Your task to perform on an android device: Empty the shopping cart on target. Image 0: 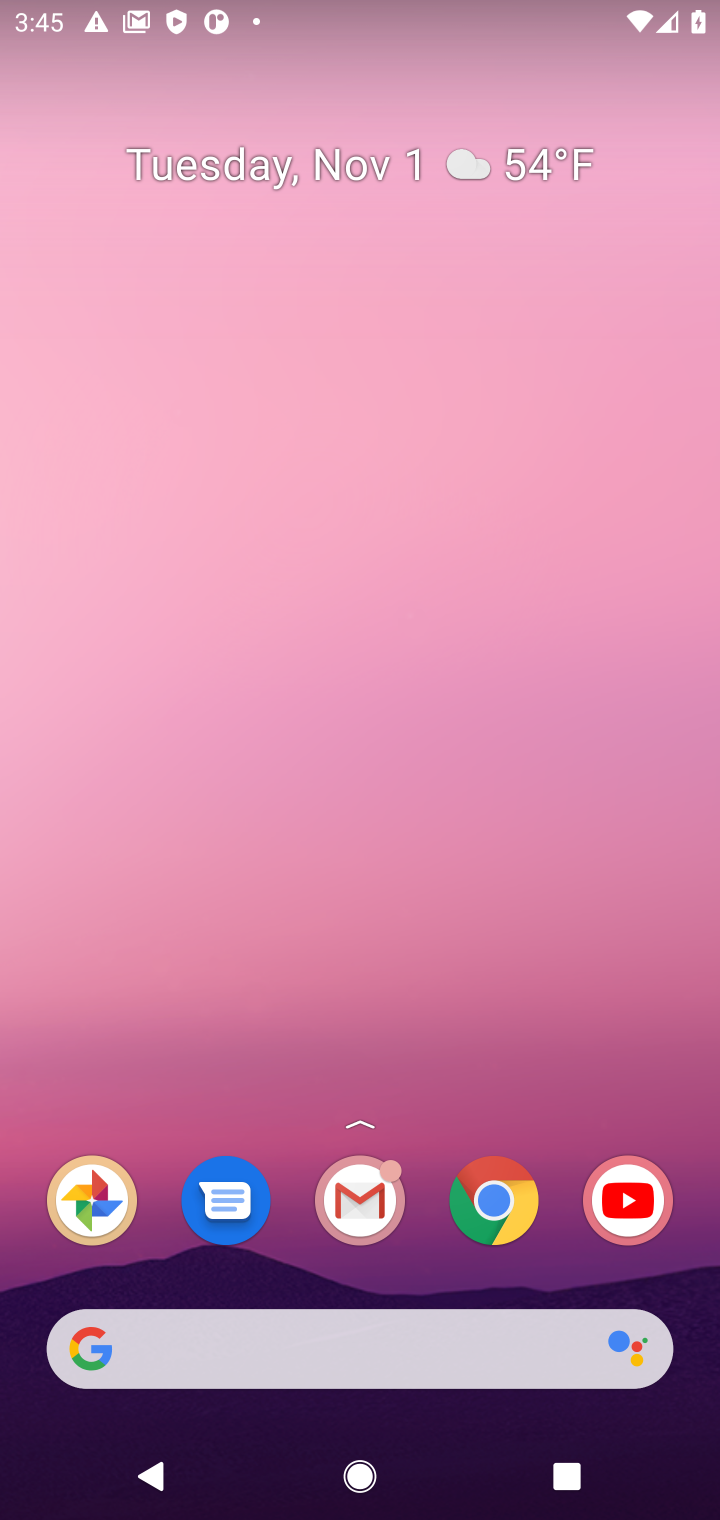
Step 0: click (87, 1353)
Your task to perform on an android device: Empty the shopping cart on target. Image 1: 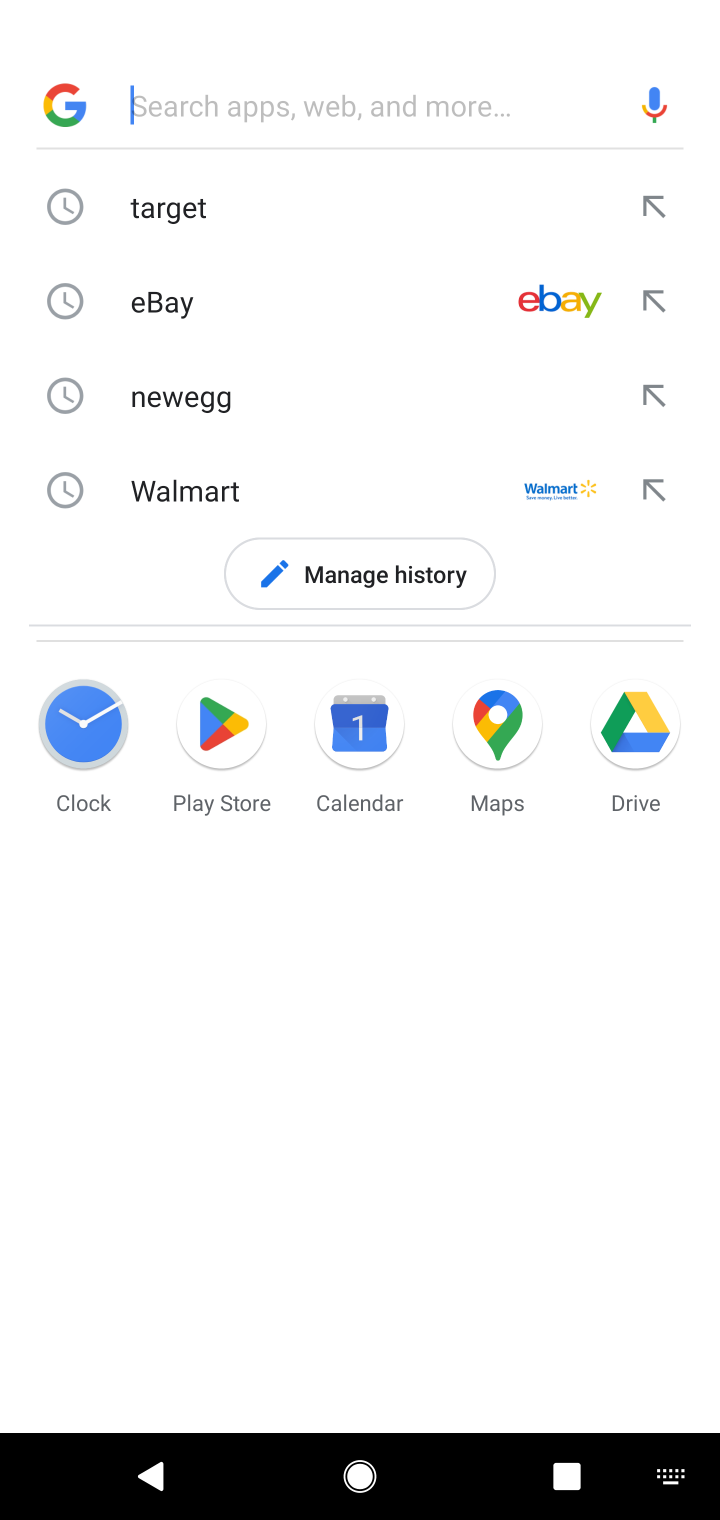
Step 1: click (197, 201)
Your task to perform on an android device: Empty the shopping cart on target. Image 2: 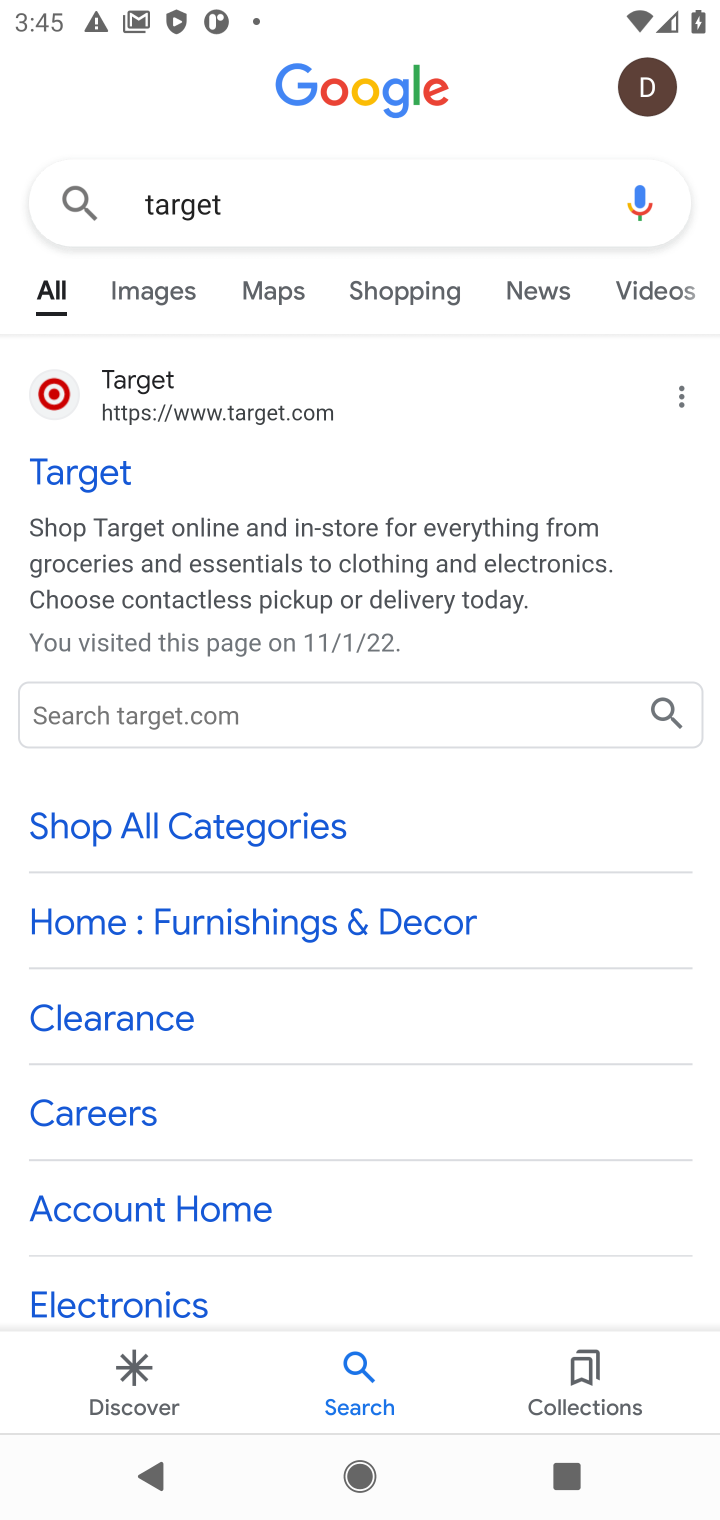
Step 2: click (112, 487)
Your task to perform on an android device: Empty the shopping cart on target. Image 3: 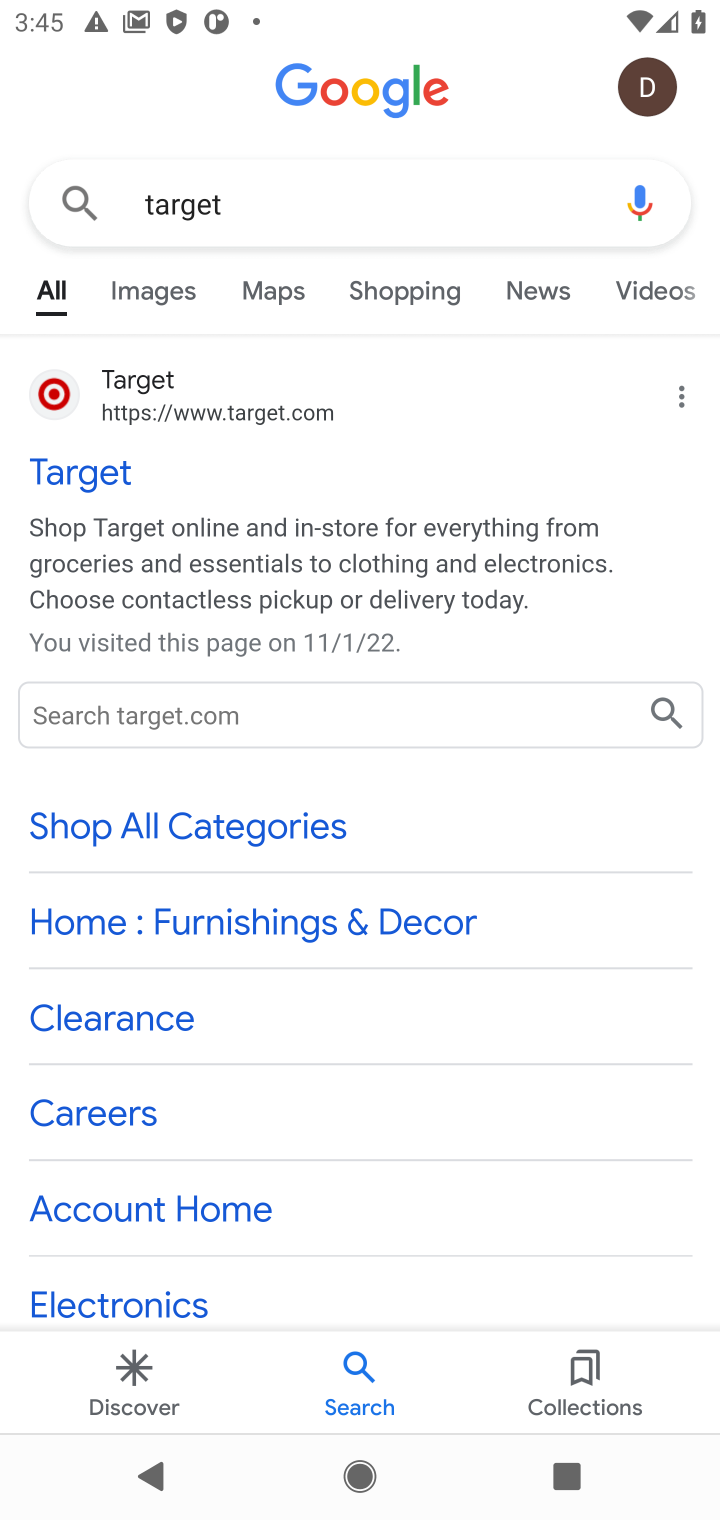
Step 3: click (97, 483)
Your task to perform on an android device: Empty the shopping cart on target. Image 4: 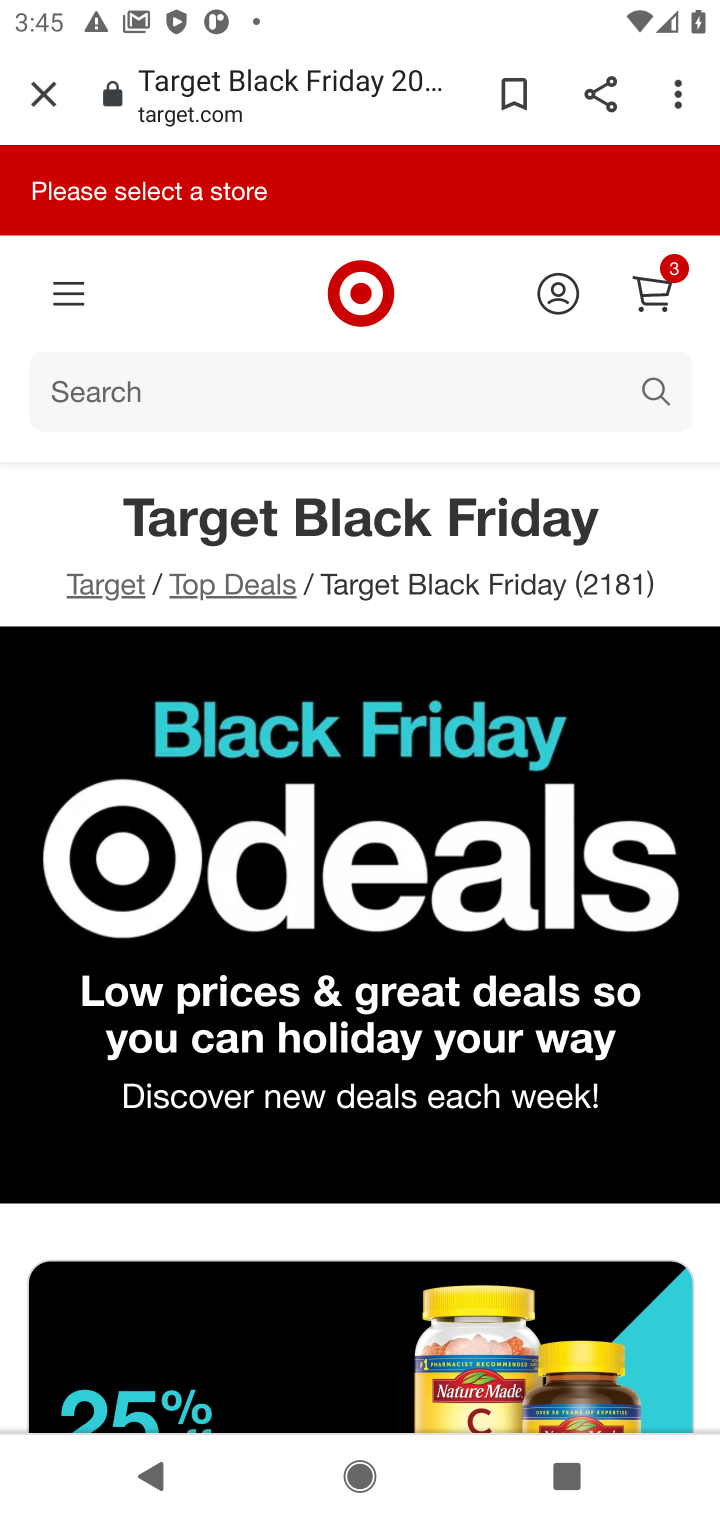
Step 4: click (660, 274)
Your task to perform on an android device: Empty the shopping cart on target. Image 5: 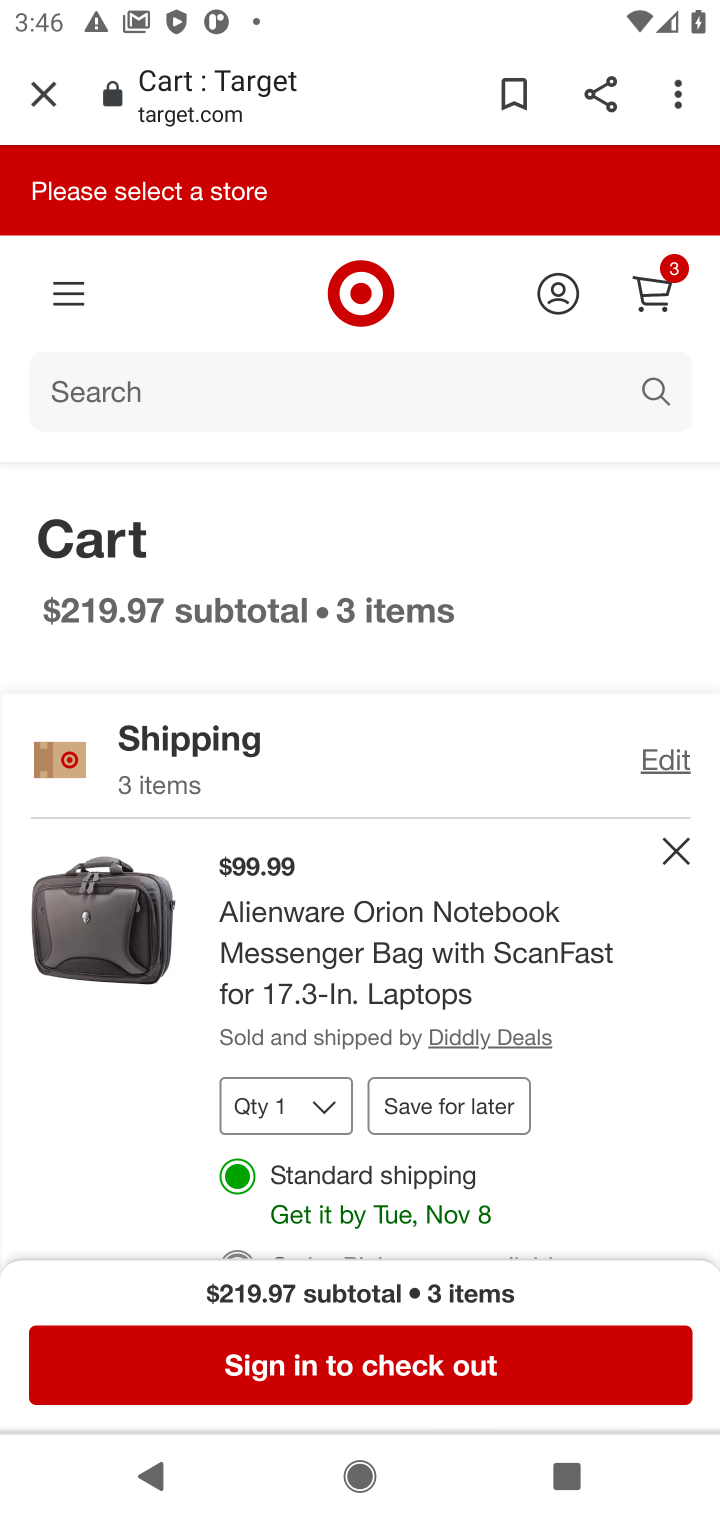
Step 5: click (678, 849)
Your task to perform on an android device: Empty the shopping cart on target. Image 6: 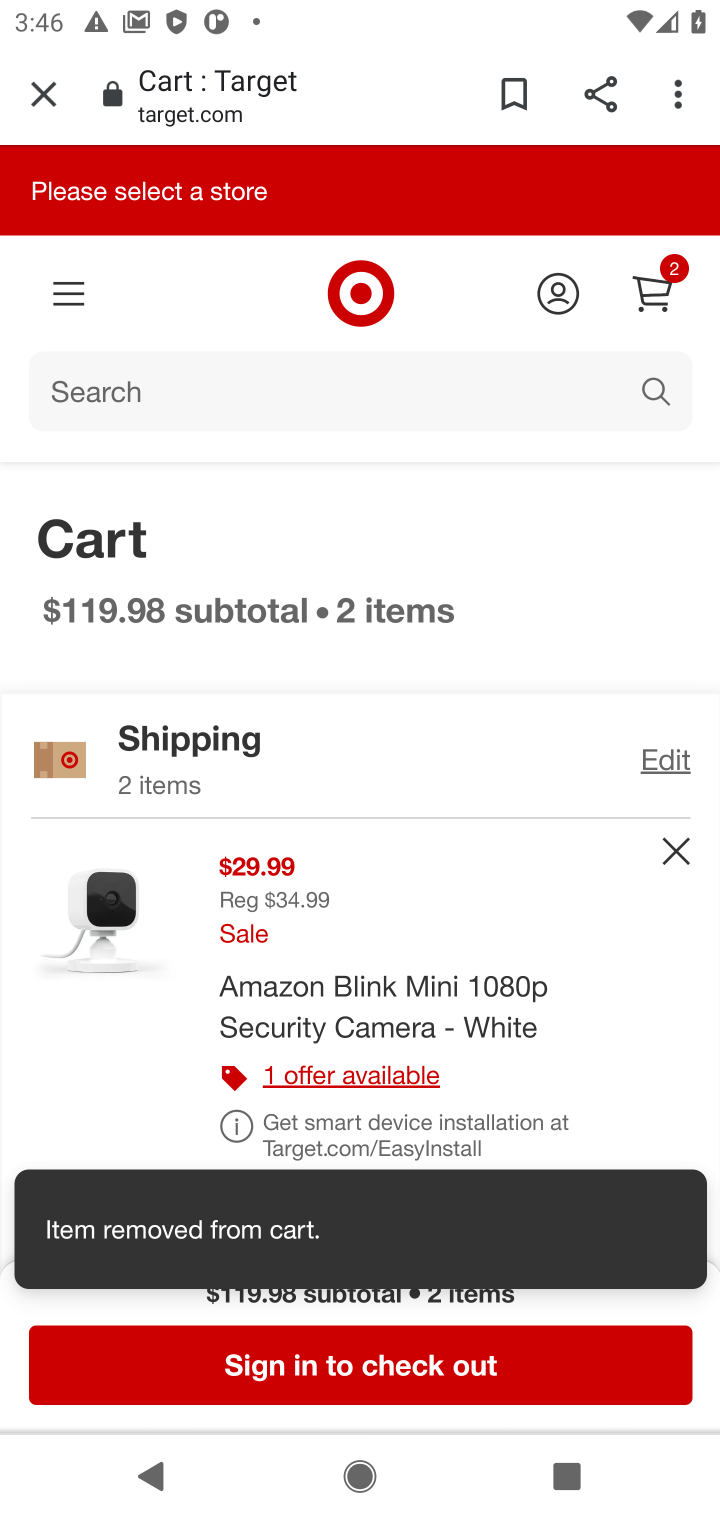
Step 6: click (676, 849)
Your task to perform on an android device: Empty the shopping cart on target. Image 7: 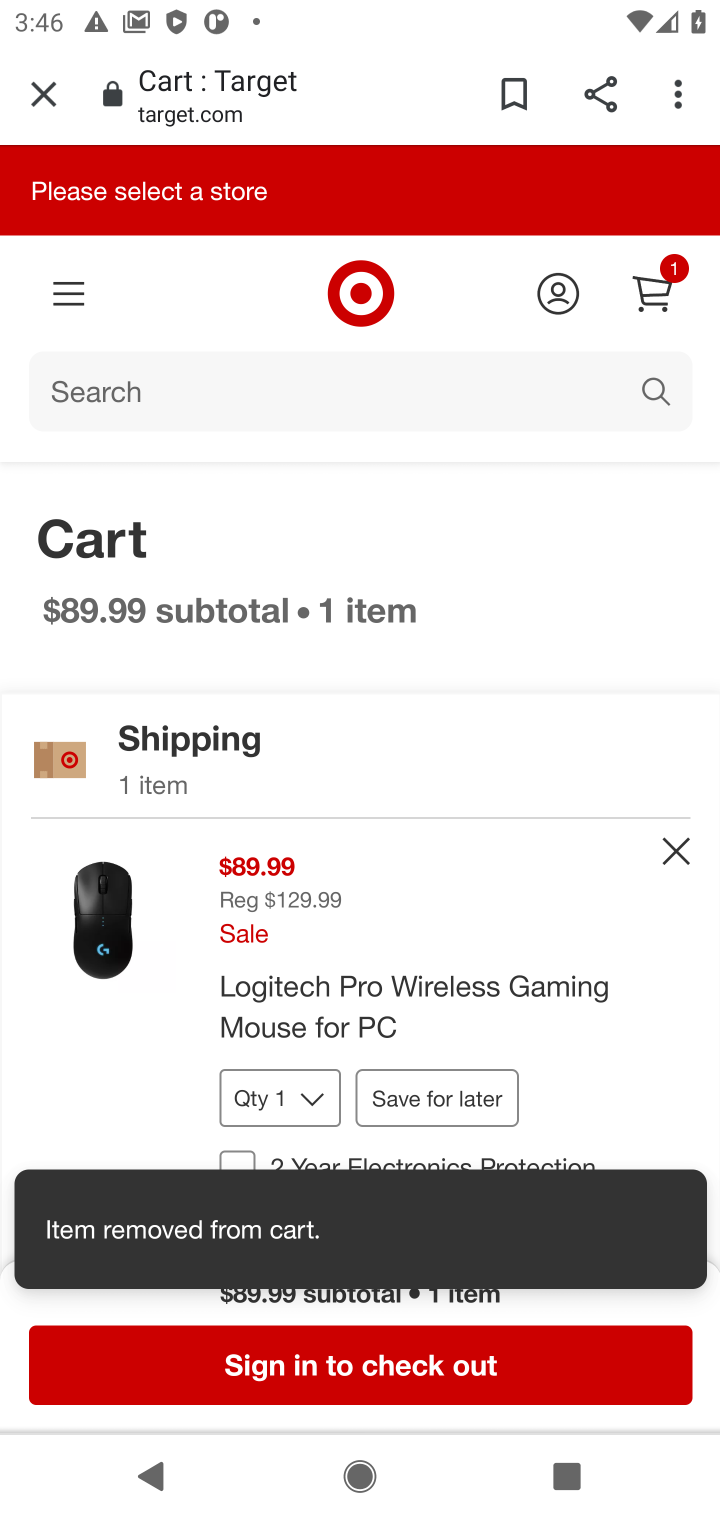
Step 7: click (676, 849)
Your task to perform on an android device: Empty the shopping cart on target. Image 8: 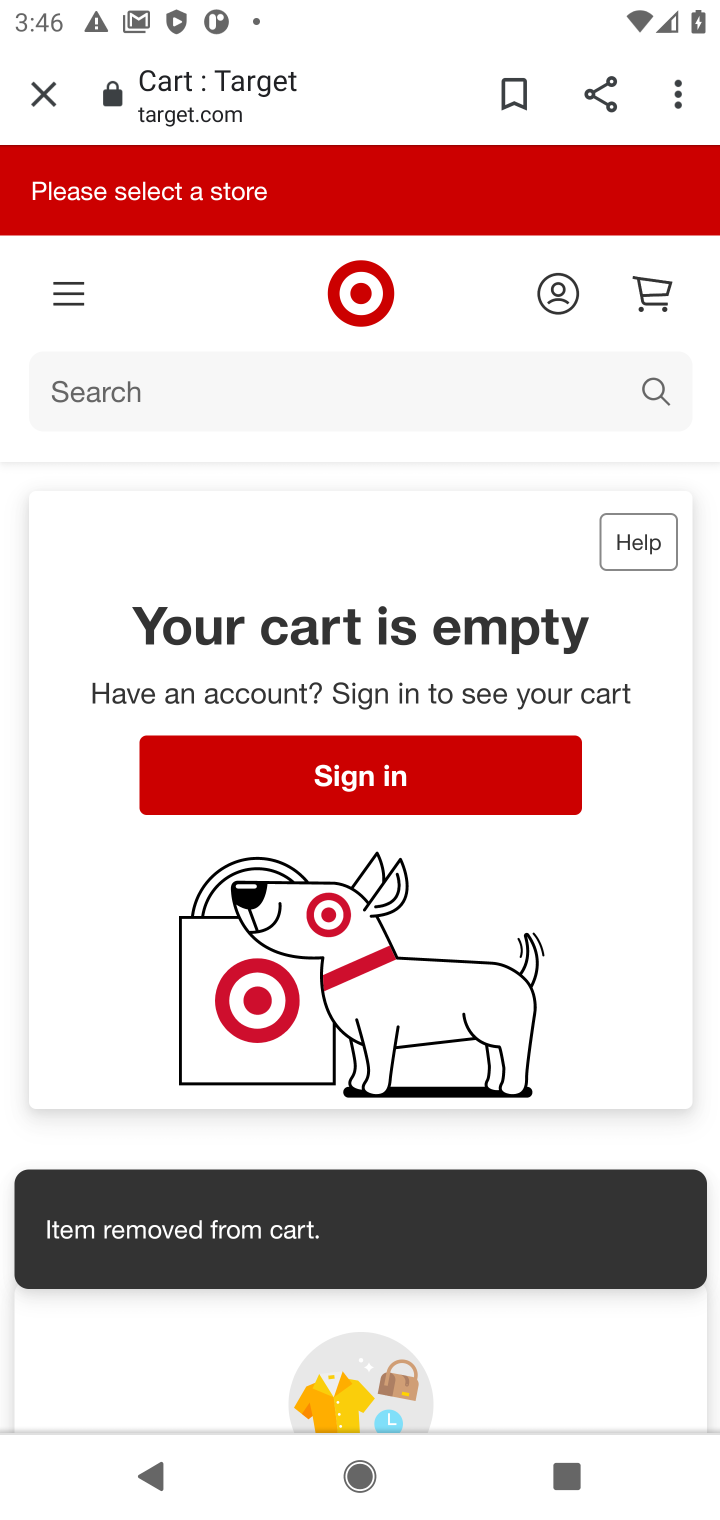
Step 8: task complete